Your task to perform on an android device: change text size in settings app Image 0: 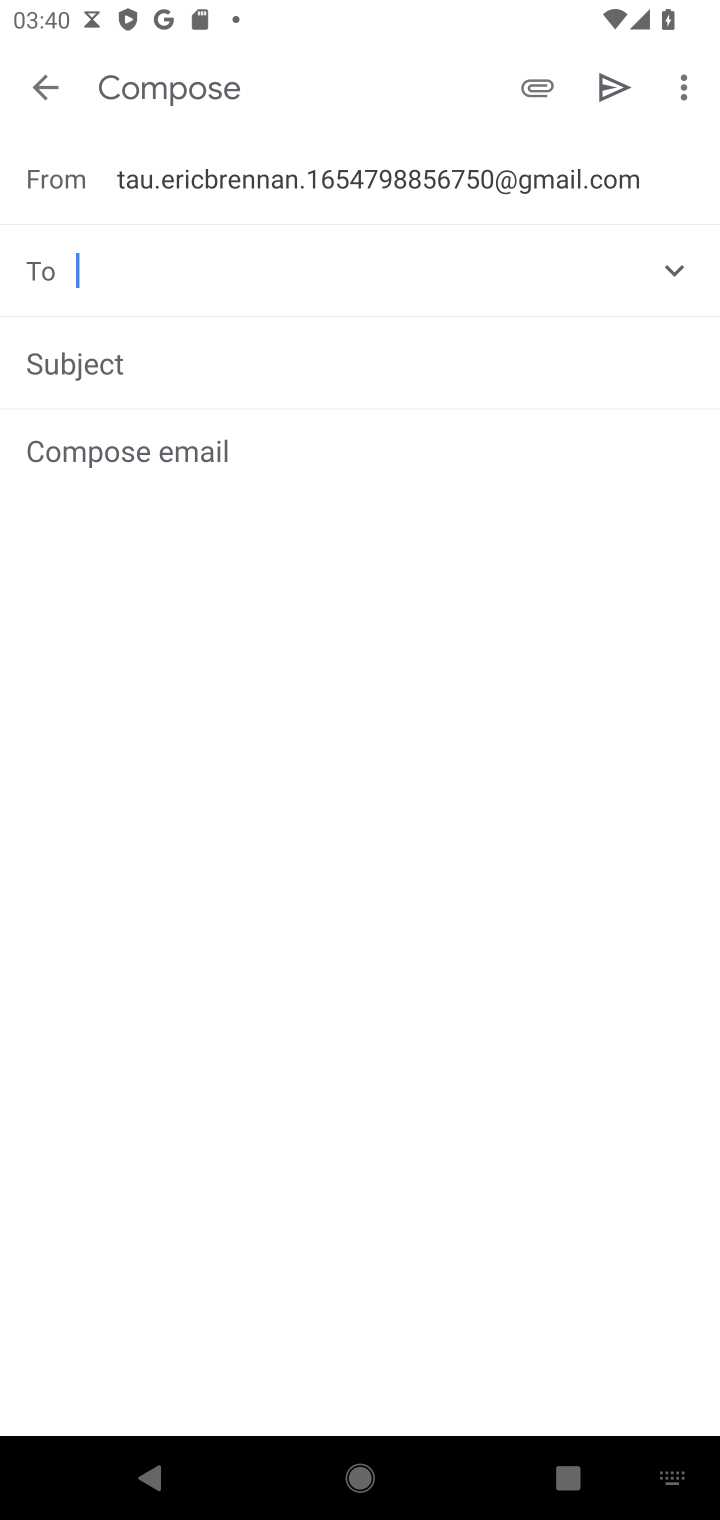
Step 0: press home button
Your task to perform on an android device: change text size in settings app Image 1: 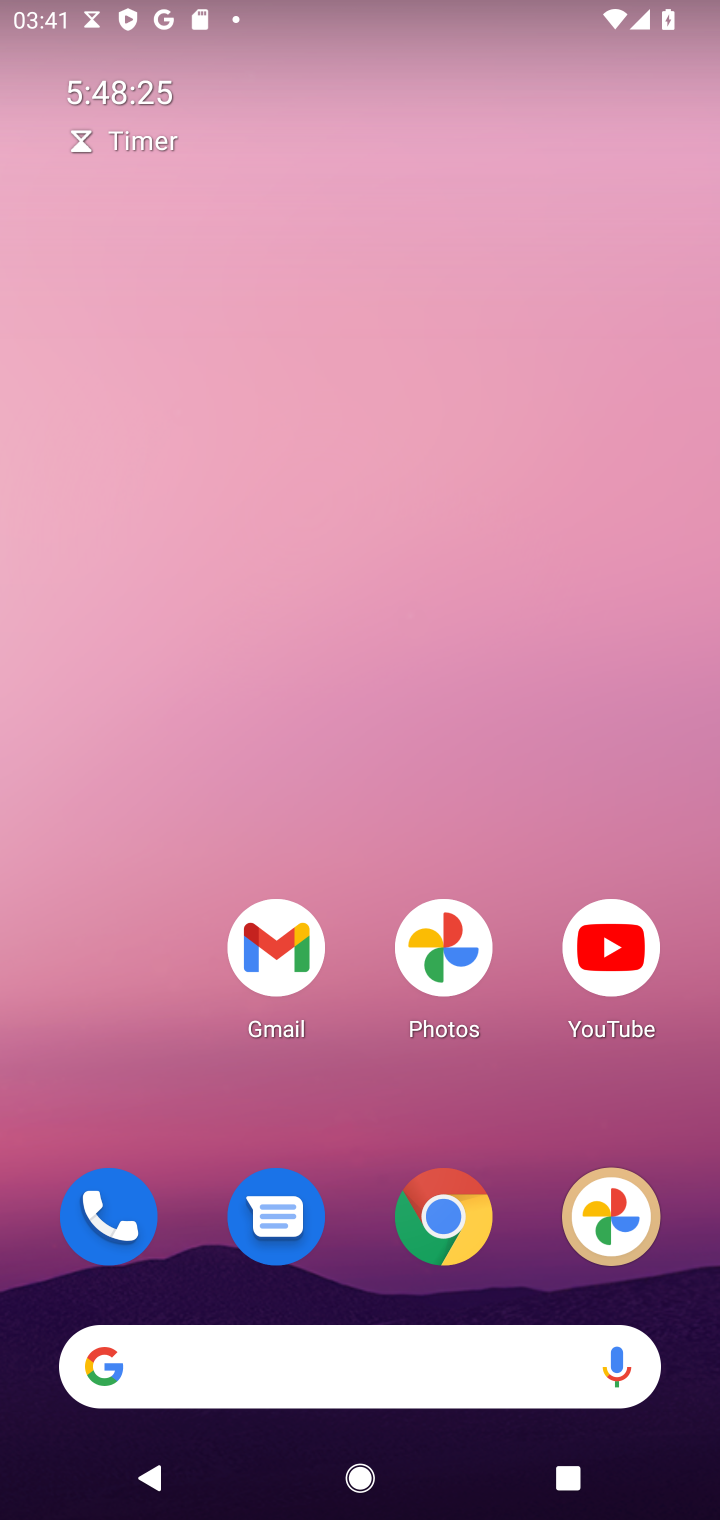
Step 1: drag from (390, 1075) to (317, 21)
Your task to perform on an android device: change text size in settings app Image 2: 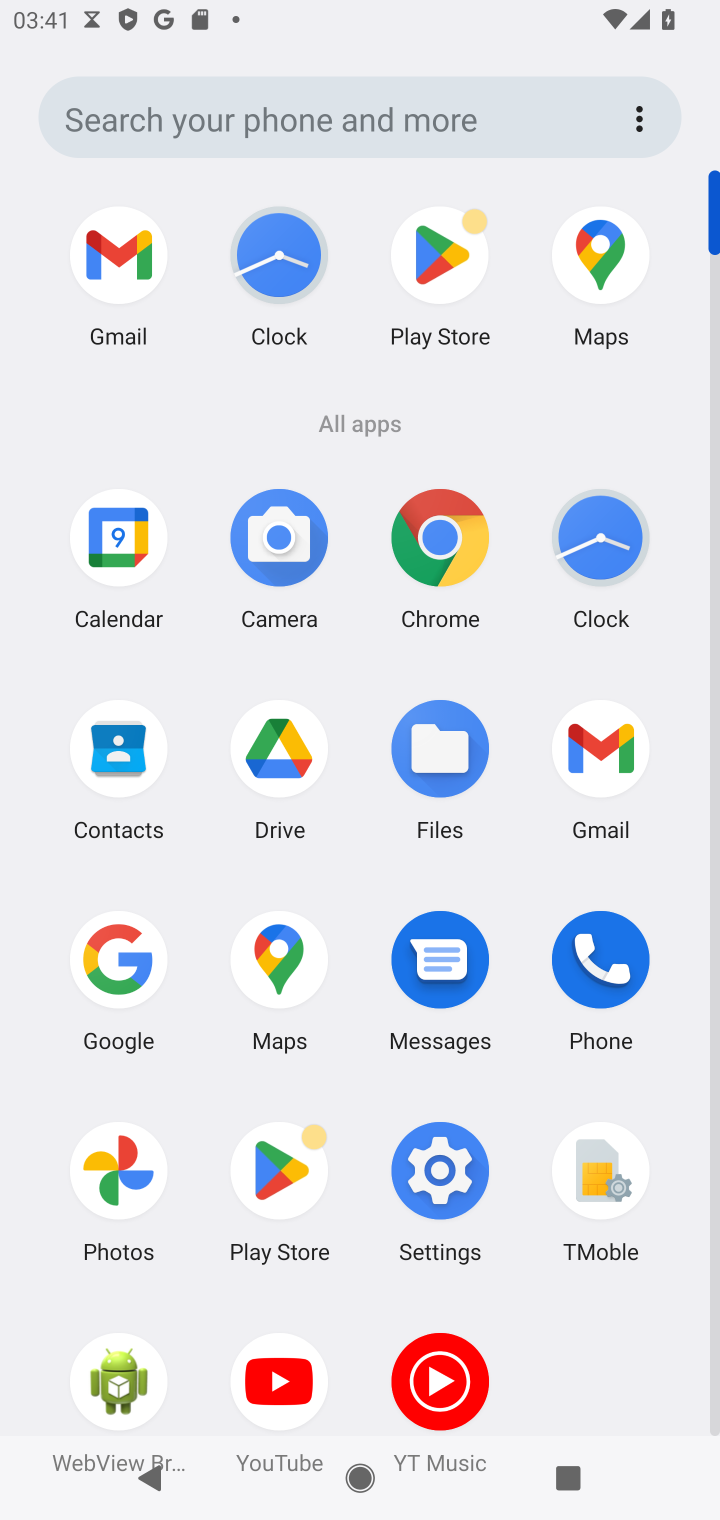
Step 2: click (445, 1215)
Your task to perform on an android device: change text size in settings app Image 3: 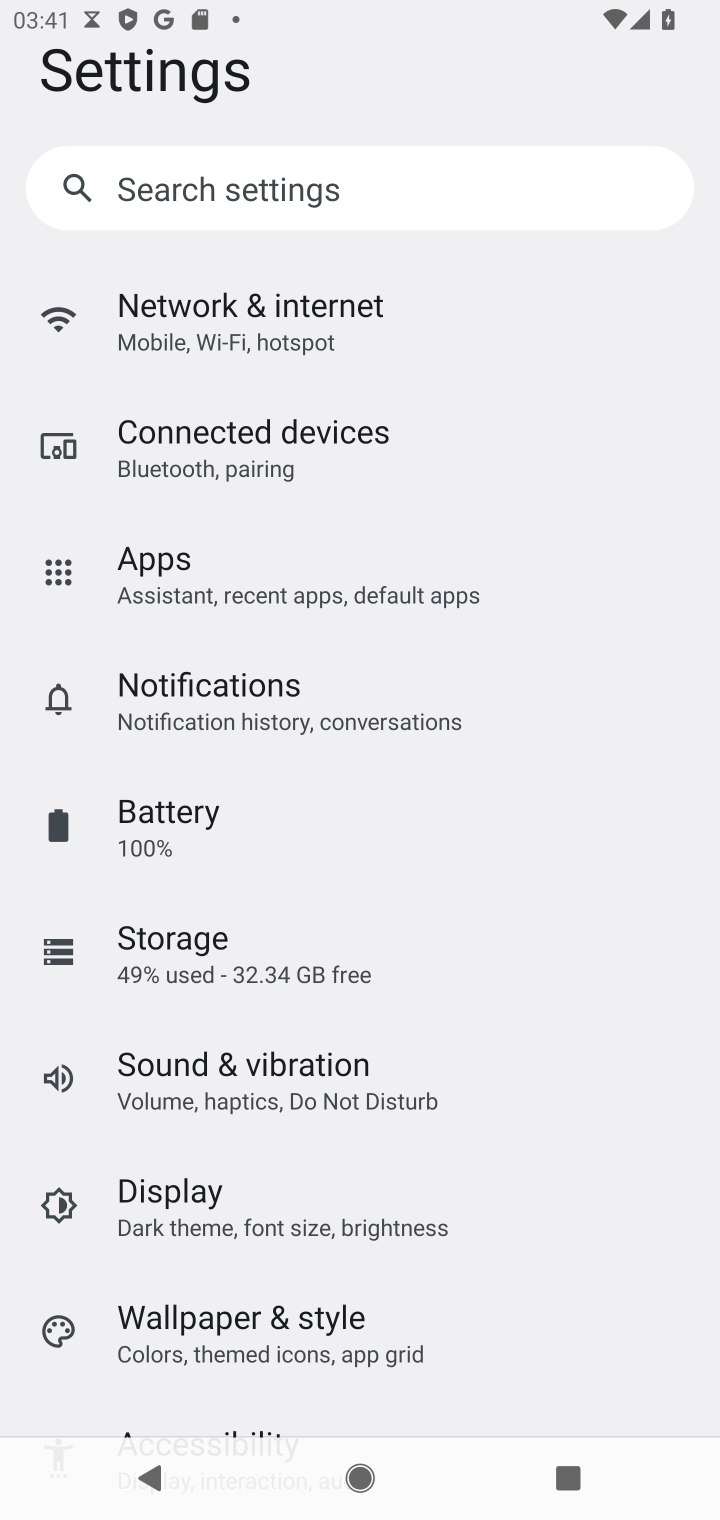
Step 3: click (212, 1196)
Your task to perform on an android device: change text size in settings app Image 4: 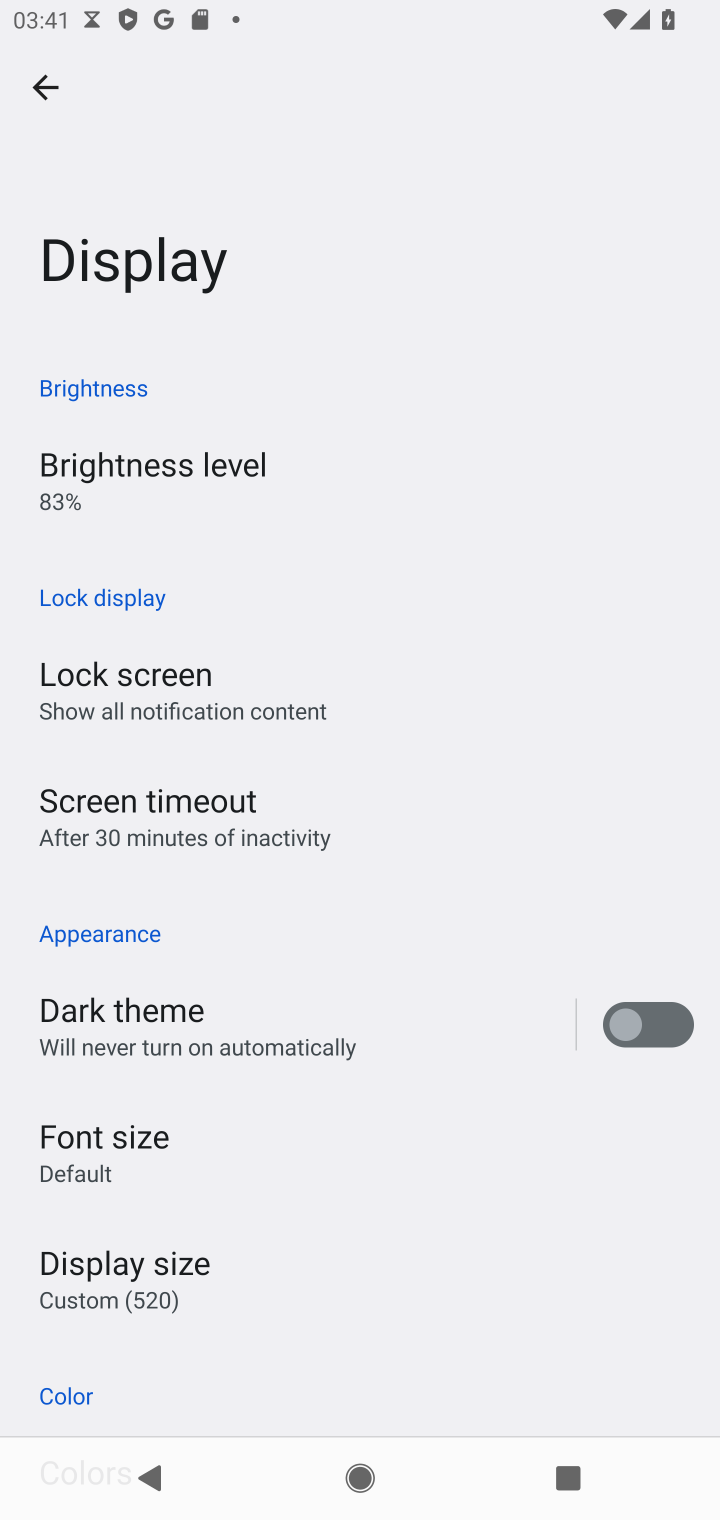
Step 4: click (147, 1164)
Your task to perform on an android device: change text size in settings app Image 5: 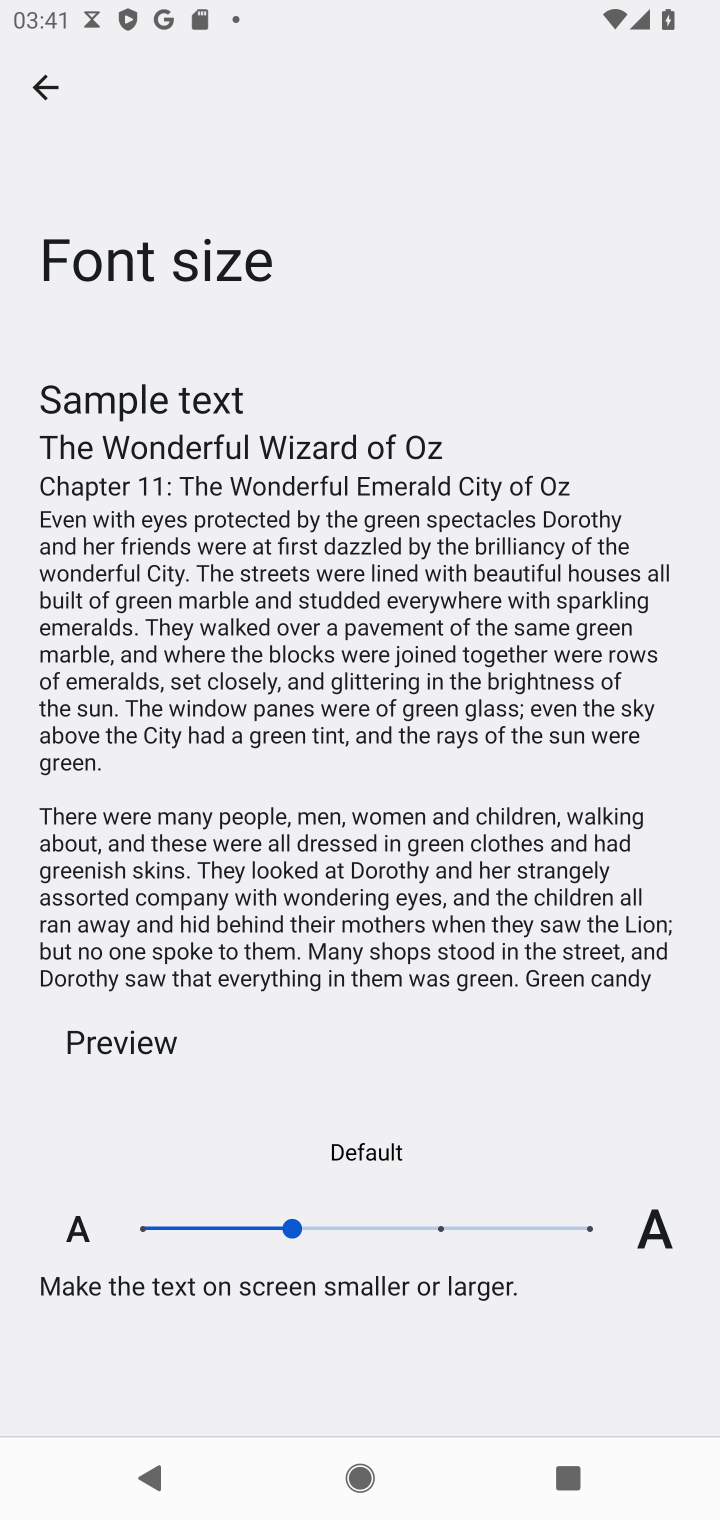
Step 5: click (461, 1230)
Your task to perform on an android device: change text size in settings app Image 6: 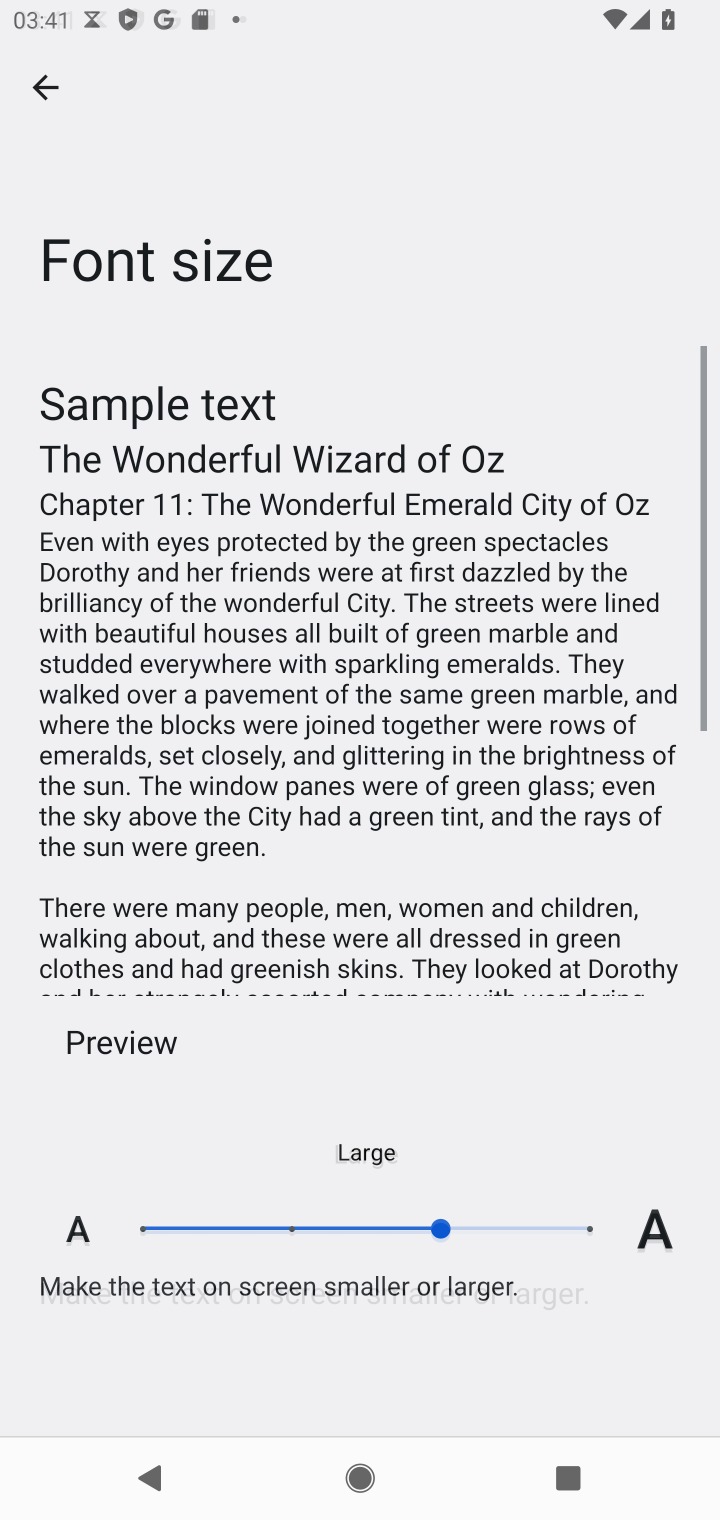
Step 6: task complete